Your task to perform on an android device: open app "Etsy: Buy & Sell Unique Items" (install if not already installed) Image 0: 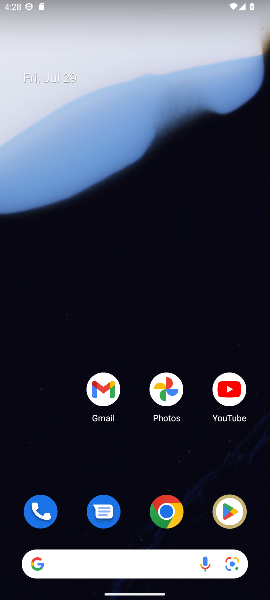
Step 0: drag from (155, 552) to (138, 166)
Your task to perform on an android device: open app "Etsy: Buy & Sell Unique Items" (install if not already installed) Image 1: 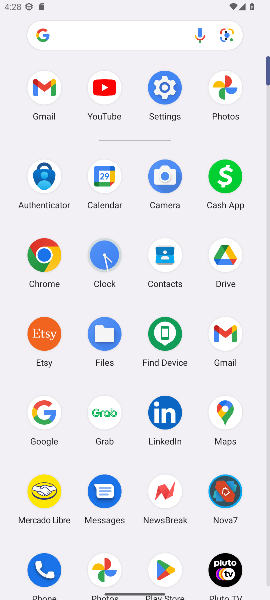
Step 1: click (46, 339)
Your task to perform on an android device: open app "Etsy: Buy & Sell Unique Items" (install if not already installed) Image 2: 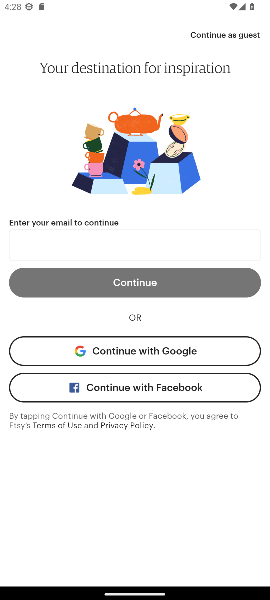
Step 2: task complete